Your task to perform on an android device: change alarm snooze length Image 0: 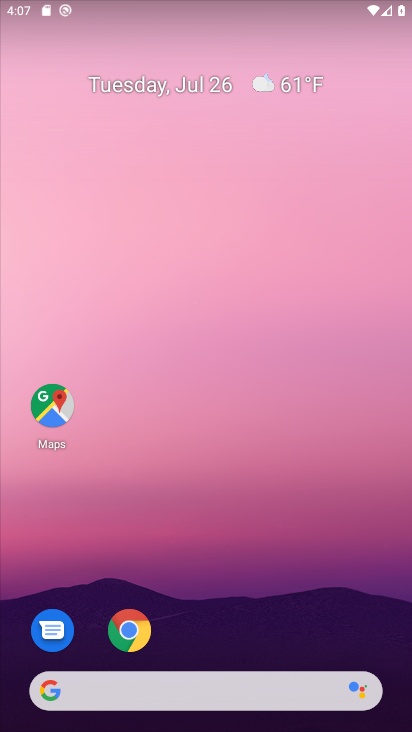
Step 0: drag from (313, 647) to (294, 293)
Your task to perform on an android device: change alarm snooze length Image 1: 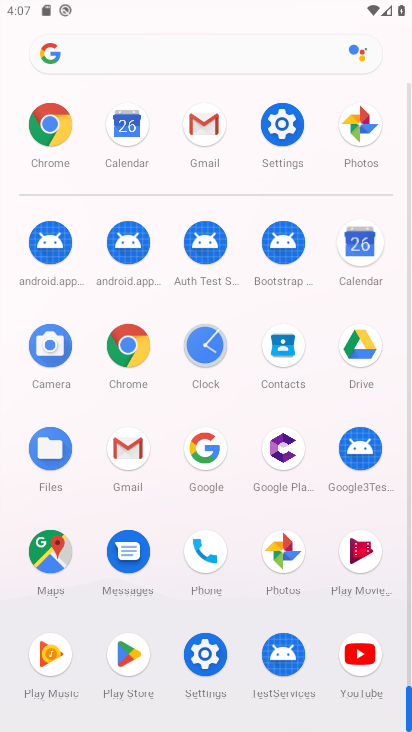
Step 1: drag from (306, 459) to (270, 178)
Your task to perform on an android device: change alarm snooze length Image 2: 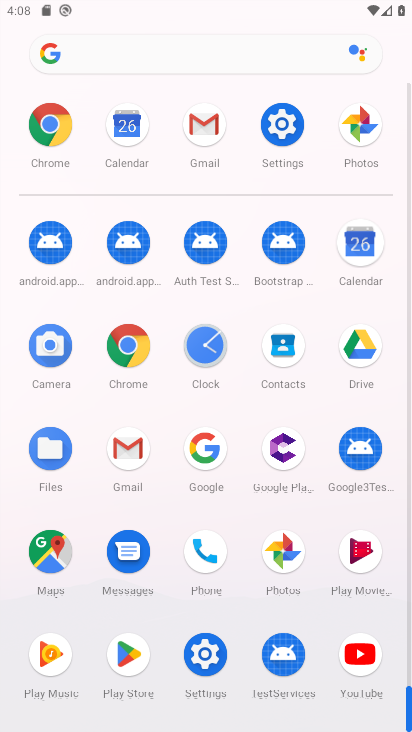
Step 2: click (209, 335)
Your task to perform on an android device: change alarm snooze length Image 3: 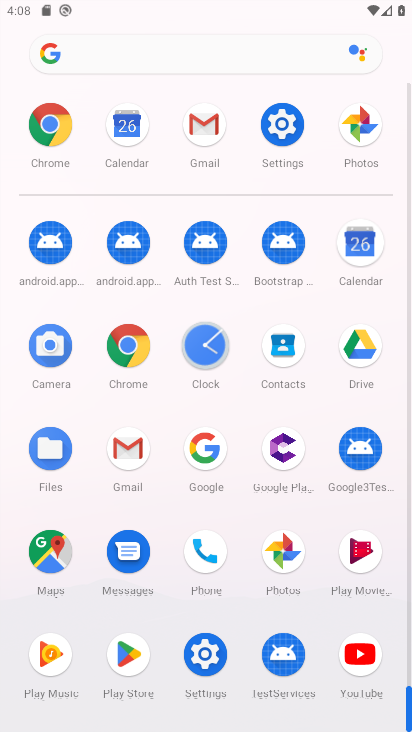
Step 3: click (214, 347)
Your task to perform on an android device: change alarm snooze length Image 4: 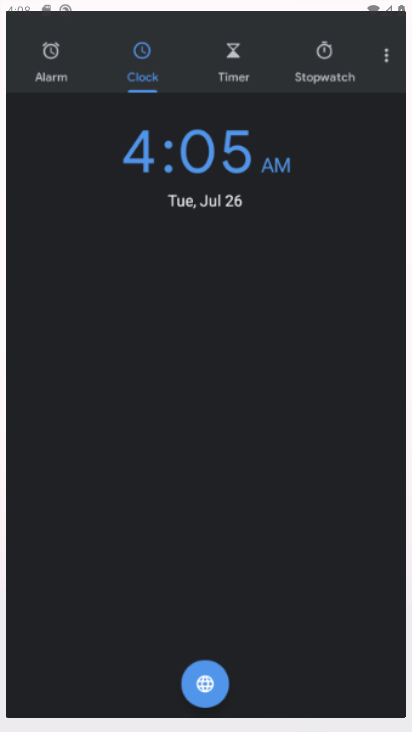
Step 4: click (215, 347)
Your task to perform on an android device: change alarm snooze length Image 5: 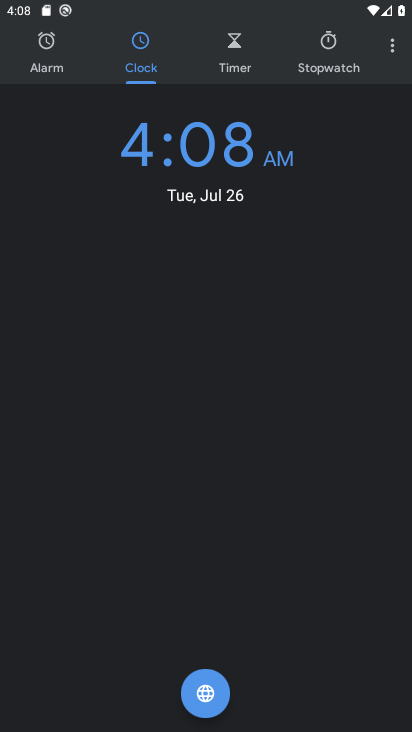
Step 5: click (396, 40)
Your task to perform on an android device: change alarm snooze length Image 6: 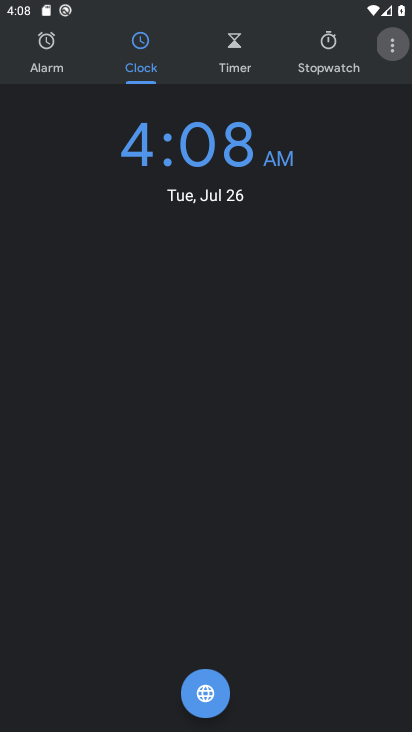
Step 6: click (396, 36)
Your task to perform on an android device: change alarm snooze length Image 7: 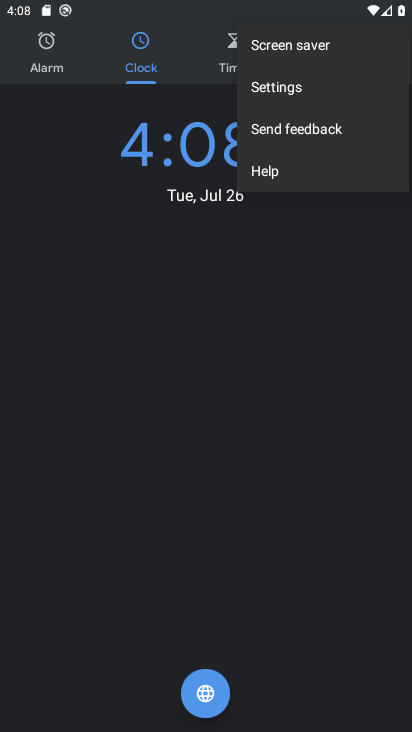
Step 7: click (278, 92)
Your task to perform on an android device: change alarm snooze length Image 8: 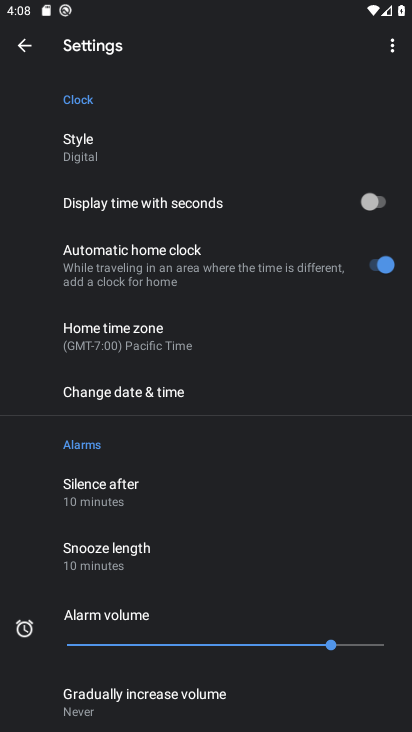
Step 8: click (83, 539)
Your task to perform on an android device: change alarm snooze length Image 9: 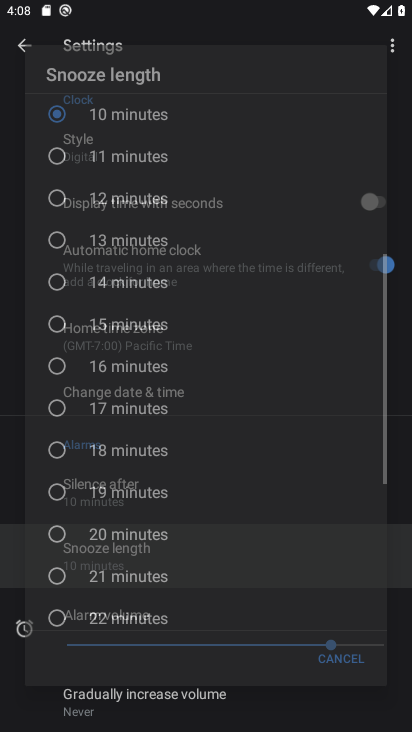
Step 9: click (83, 539)
Your task to perform on an android device: change alarm snooze length Image 10: 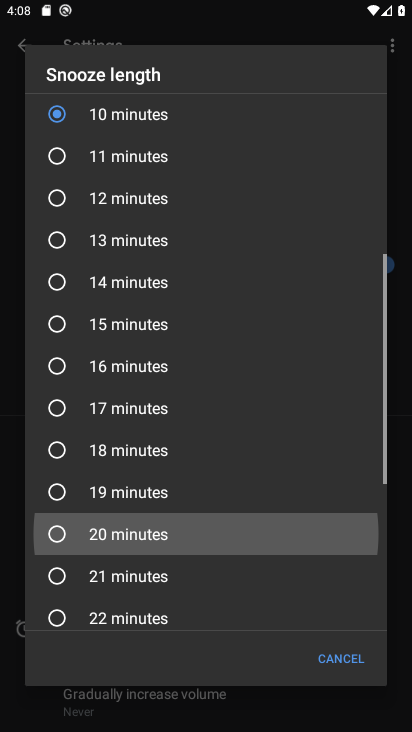
Step 10: click (86, 541)
Your task to perform on an android device: change alarm snooze length Image 11: 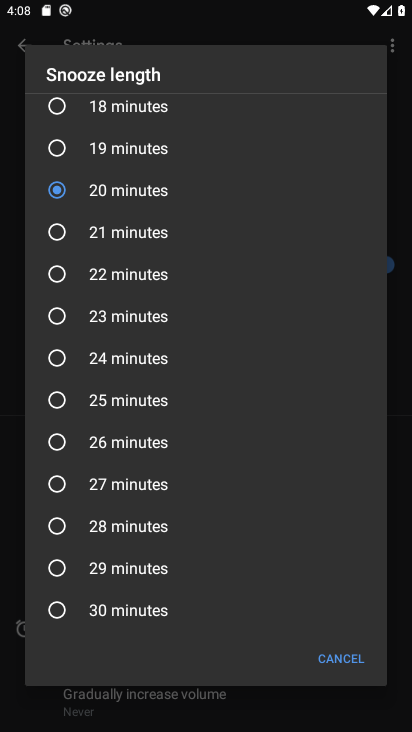
Step 11: click (56, 352)
Your task to perform on an android device: change alarm snooze length Image 12: 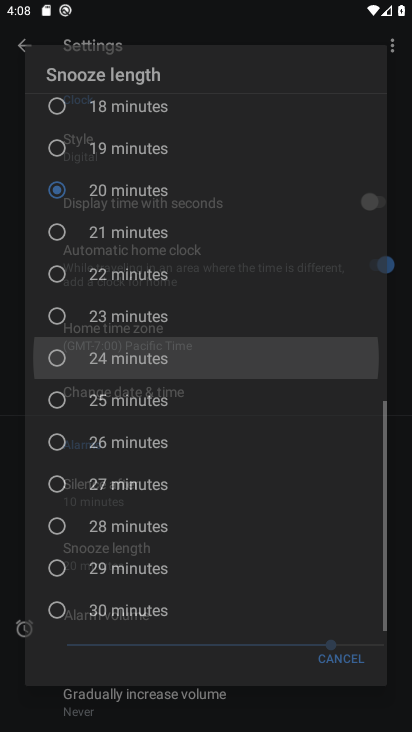
Step 12: click (56, 352)
Your task to perform on an android device: change alarm snooze length Image 13: 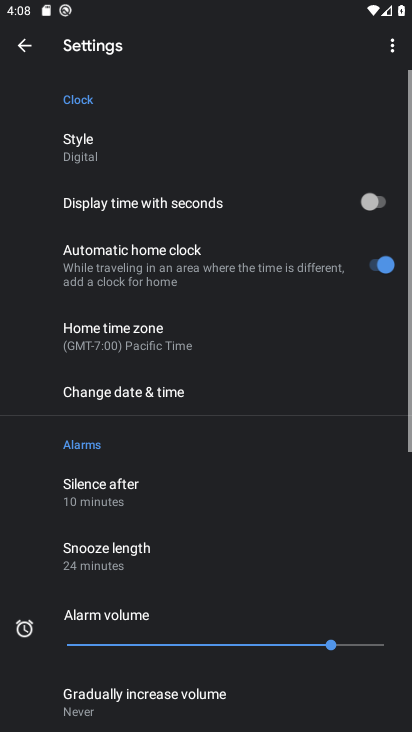
Step 13: click (56, 352)
Your task to perform on an android device: change alarm snooze length Image 14: 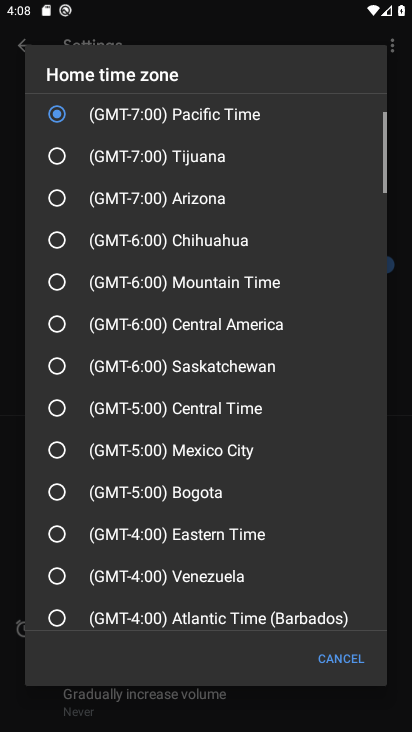
Step 14: task complete